Your task to perform on an android device: toggle javascript in the chrome app Image 0: 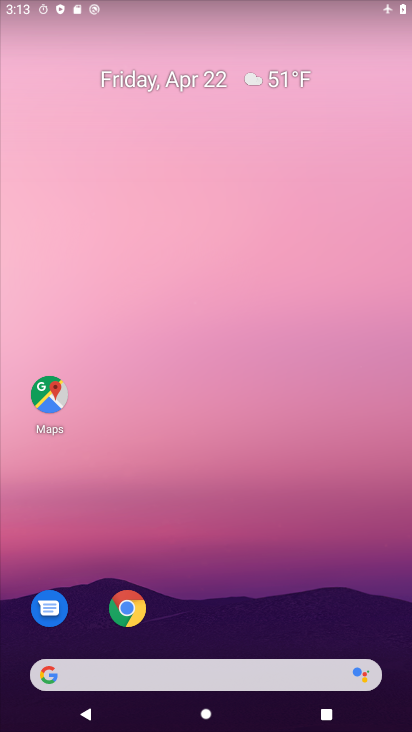
Step 0: click (122, 610)
Your task to perform on an android device: toggle javascript in the chrome app Image 1: 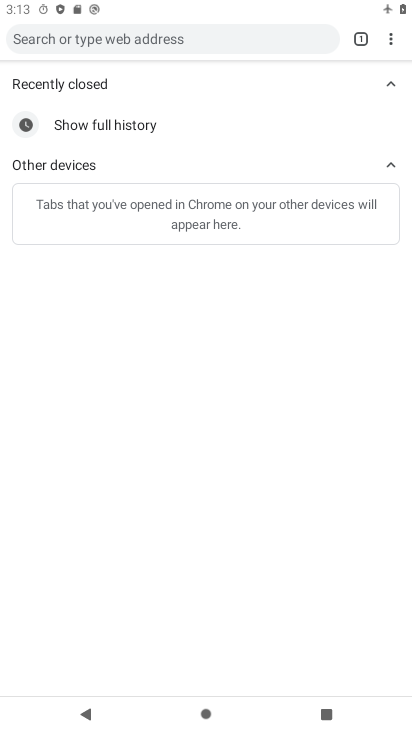
Step 1: click (392, 38)
Your task to perform on an android device: toggle javascript in the chrome app Image 2: 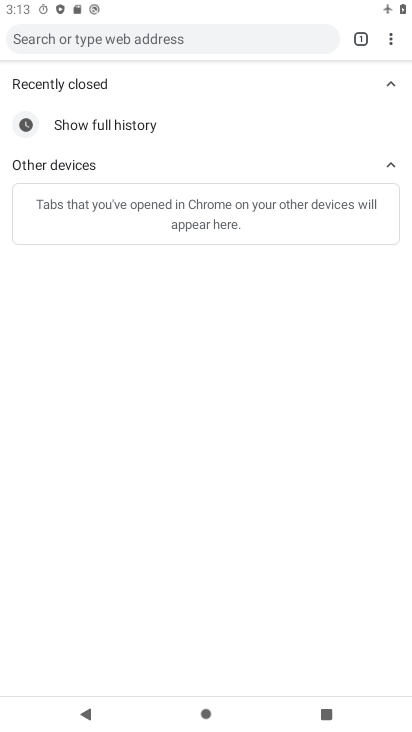
Step 2: click (392, 38)
Your task to perform on an android device: toggle javascript in the chrome app Image 3: 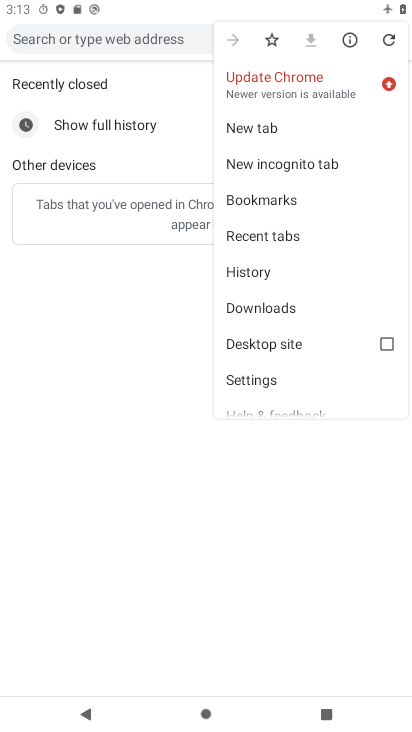
Step 3: click (266, 380)
Your task to perform on an android device: toggle javascript in the chrome app Image 4: 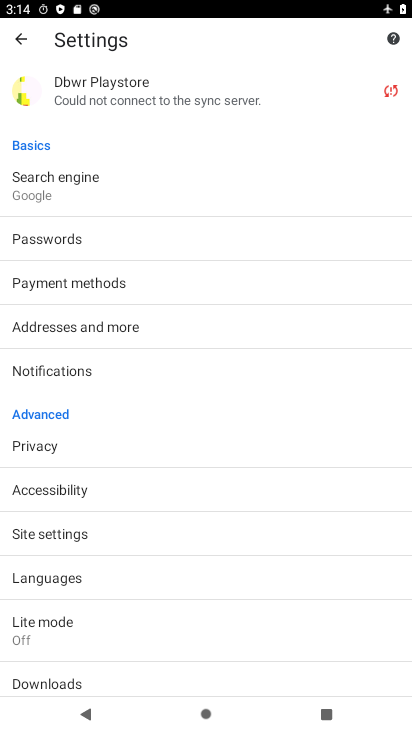
Step 4: click (56, 535)
Your task to perform on an android device: toggle javascript in the chrome app Image 5: 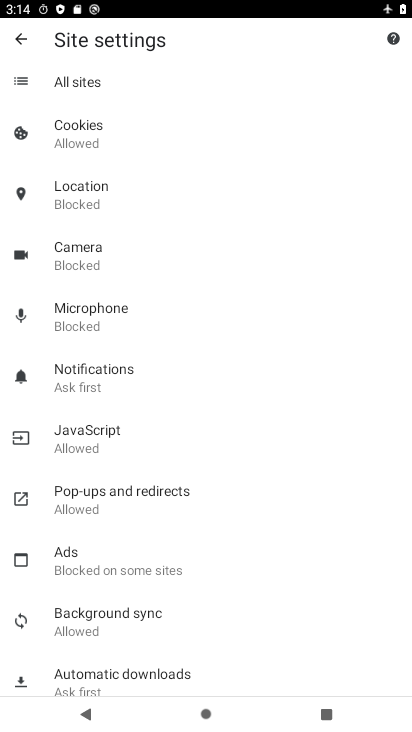
Step 5: click (72, 430)
Your task to perform on an android device: toggle javascript in the chrome app Image 6: 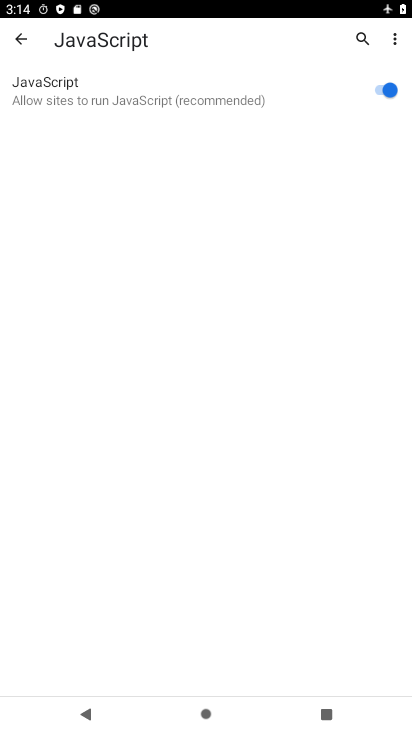
Step 6: click (384, 92)
Your task to perform on an android device: toggle javascript in the chrome app Image 7: 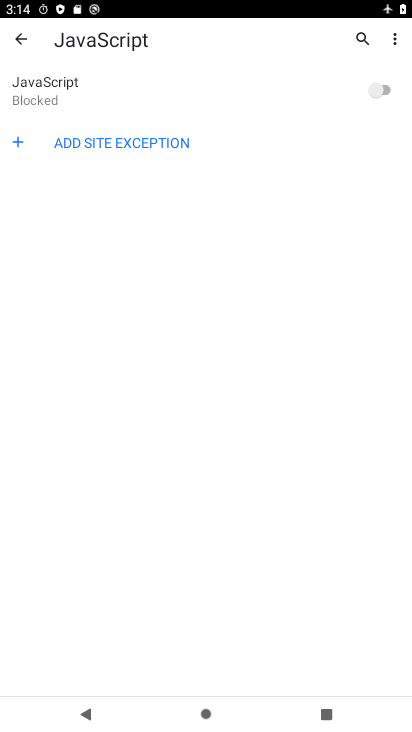
Step 7: task complete